Your task to perform on an android device: turn on bluetooth scan Image 0: 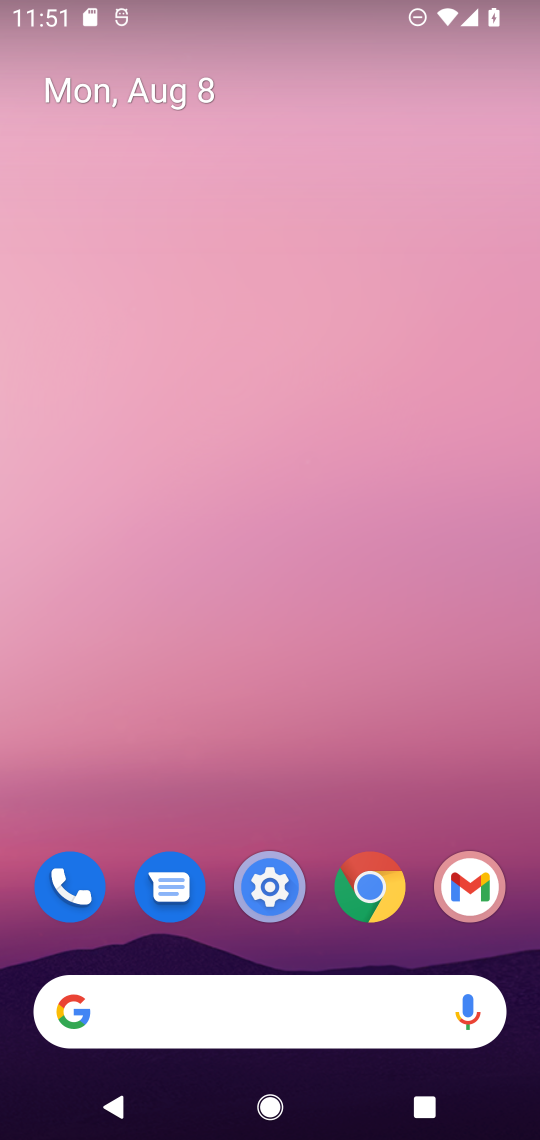
Step 0: drag from (384, 802) to (276, 94)
Your task to perform on an android device: turn on bluetooth scan Image 1: 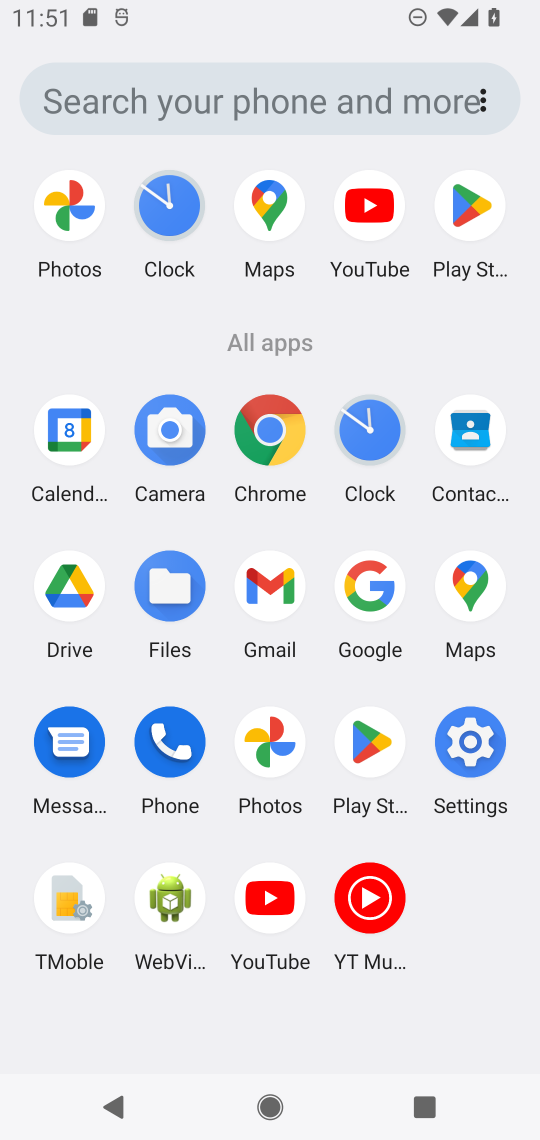
Step 1: click (473, 747)
Your task to perform on an android device: turn on bluetooth scan Image 2: 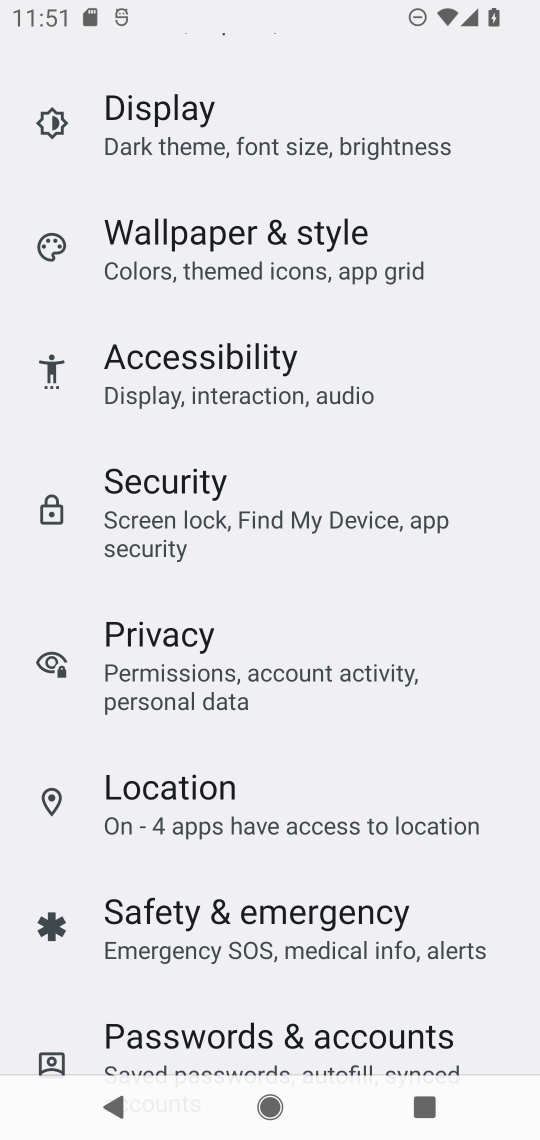
Step 2: drag from (329, 756) to (325, 81)
Your task to perform on an android device: turn on bluetooth scan Image 3: 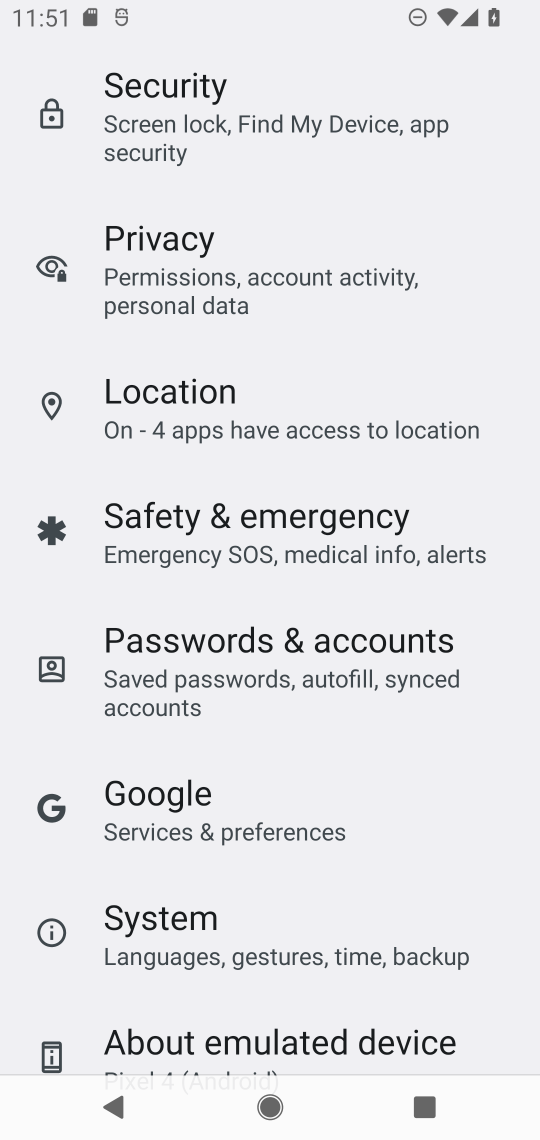
Step 3: click (188, 393)
Your task to perform on an android device: turn on bluetooth scan Image 4: 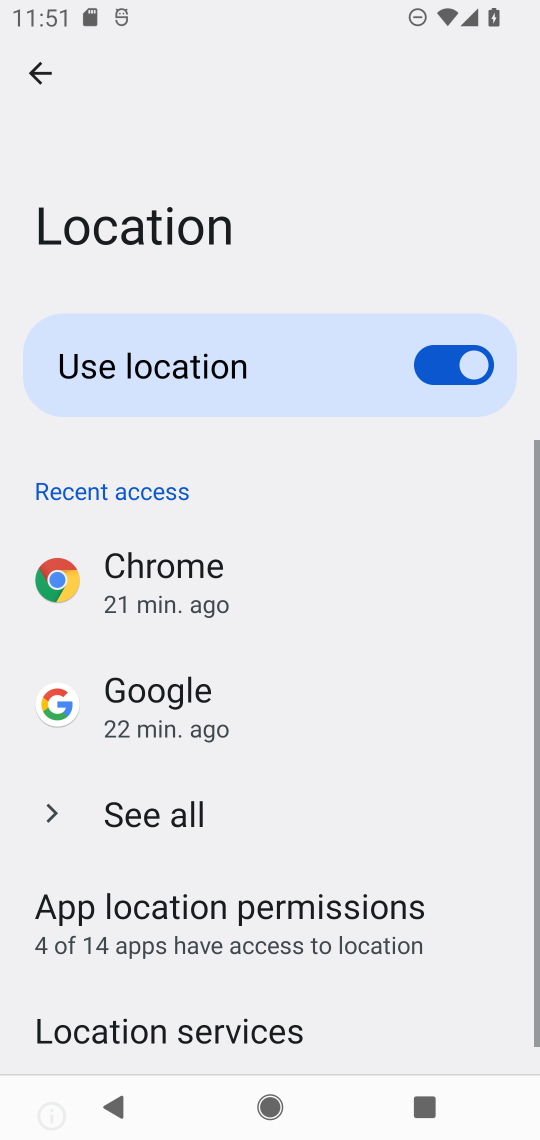
Step 4: drag from (311, 758) to (287, 429)
Your task to perform on an android device: turn on bluetooth scan Image 5: 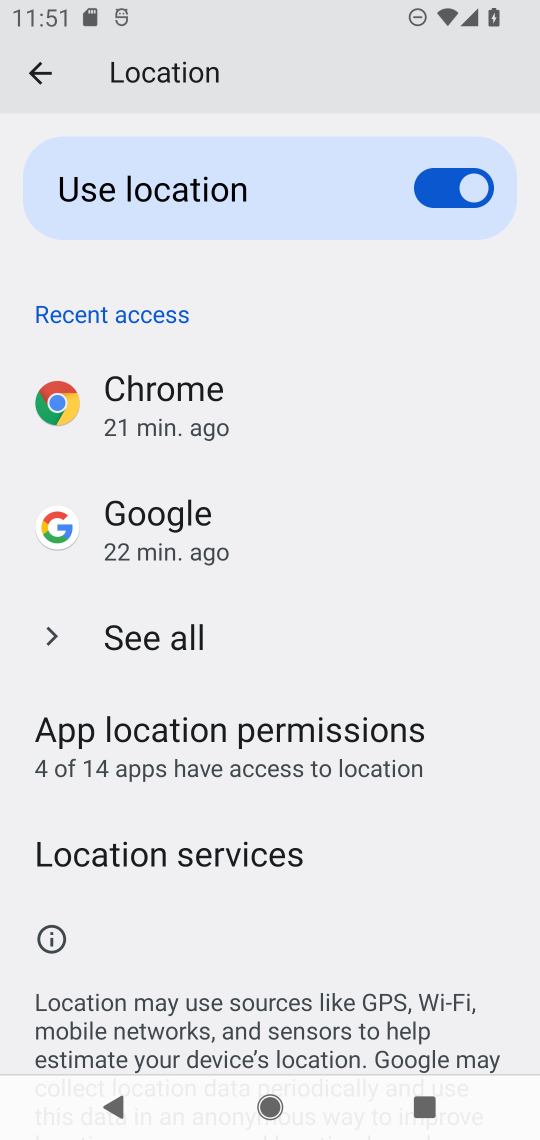
Step 5: click (191, 849)
Your task to perform on an android device: turn on bluetooth scan Image 6: 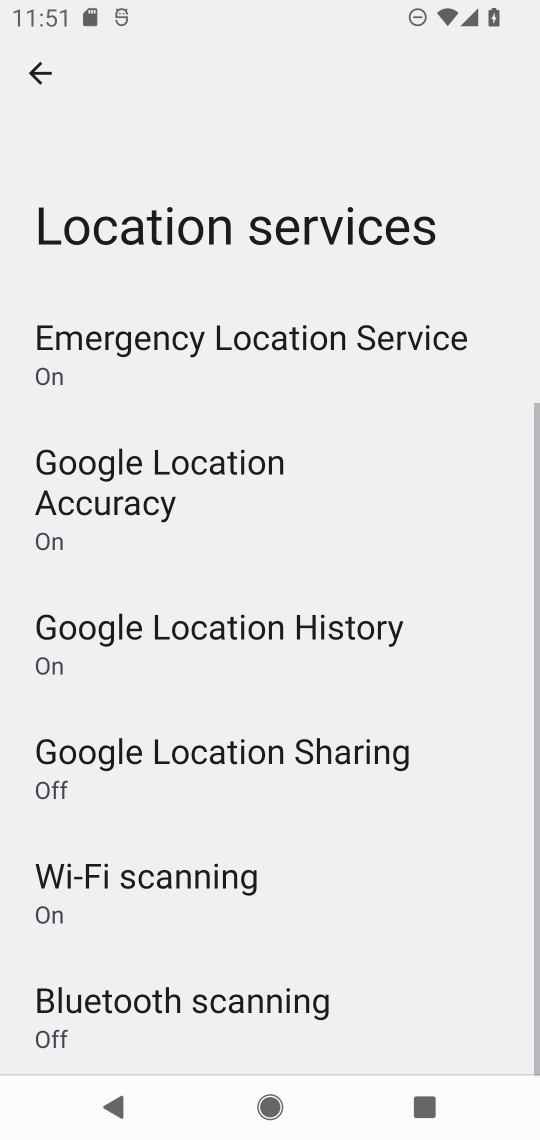
Step 6: click (201, 1000)
Your task to perform on an android device: turn on bluetooth scan Image 7: 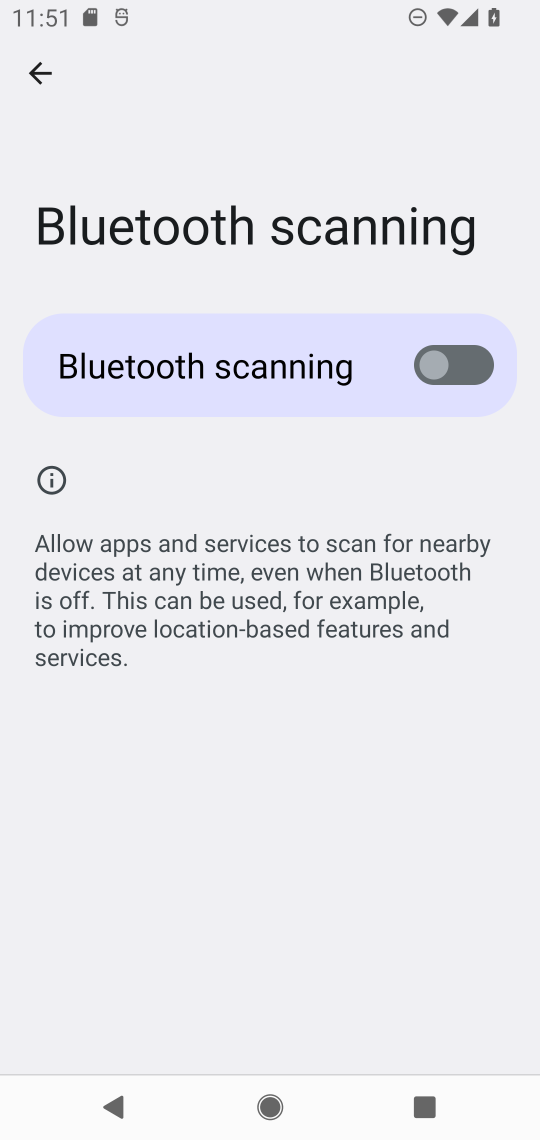
Step 7: click (446, 357)
Your task to perform on an android device: turn on bluetooth scan Image 8: 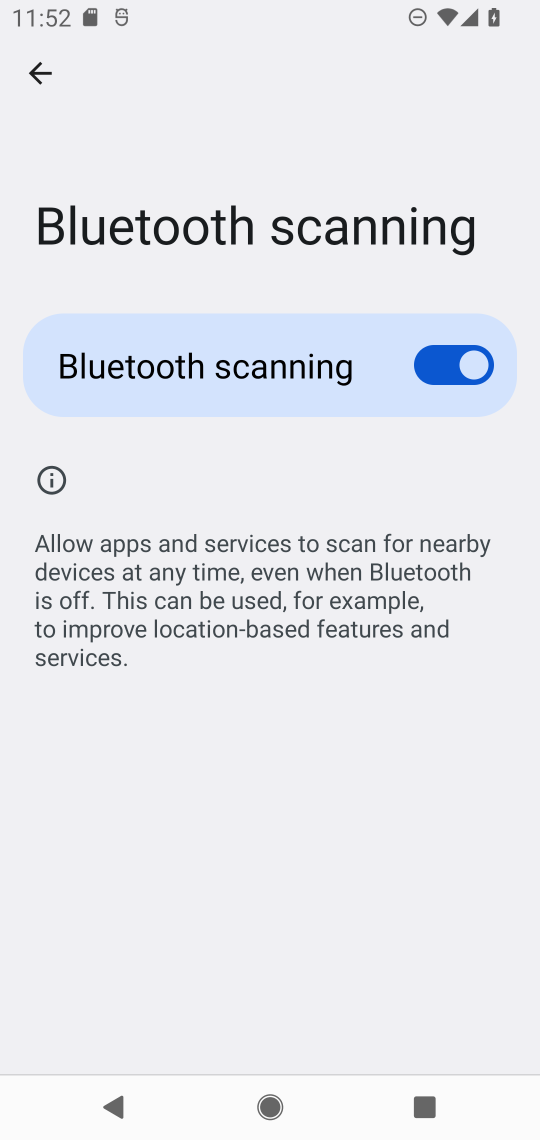
Step 8: task complete